Your task to perform on an android device: When is my next meeting? Image 0: 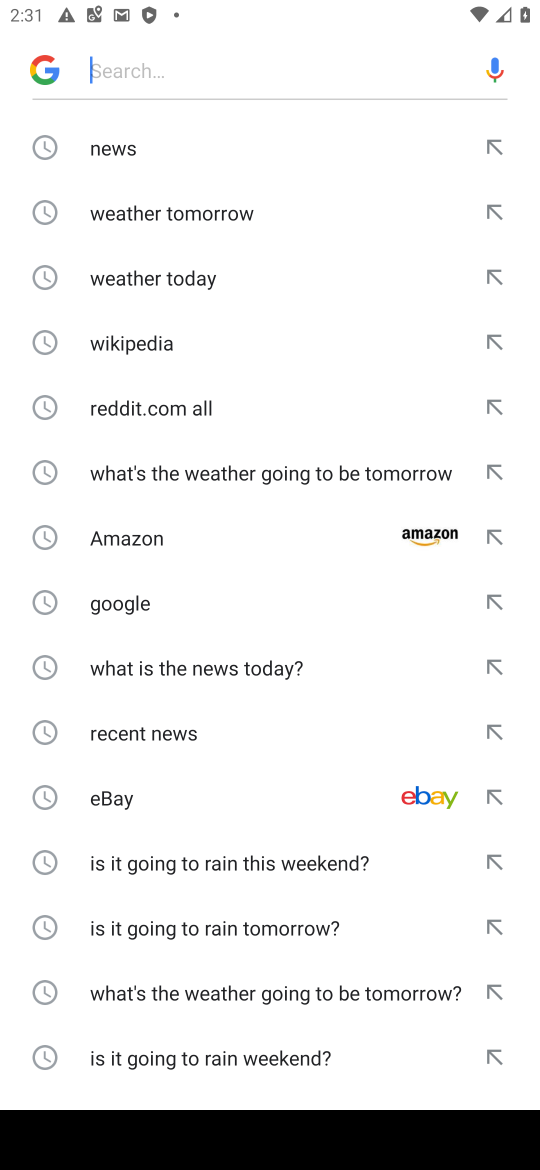
Step 0: press home button
Your task to perform on an android device: When is my next meeting? Image 1: 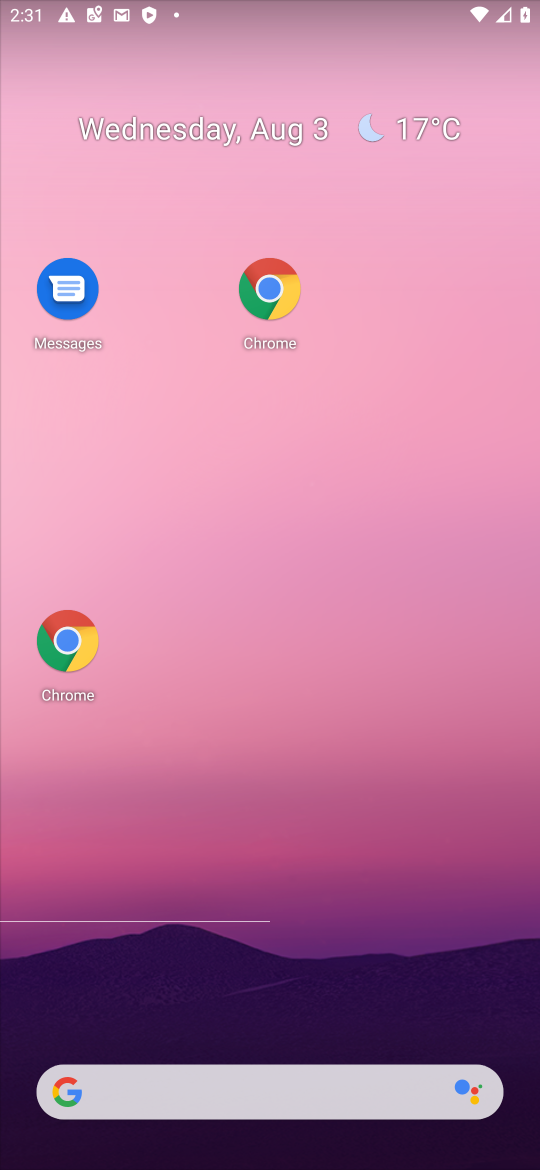
Step 1: drag from (337, 1015) to (458, 132)
Your task to perform on an android device: When is my next meeting? Image 2: 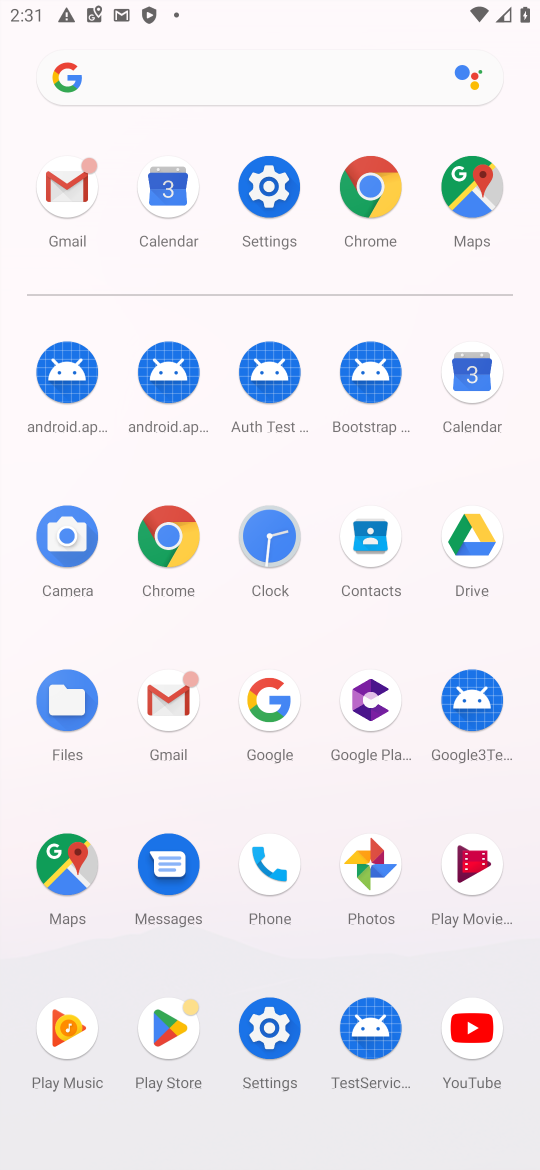
Step 2: click (477, 372)
Your task to perform on an android device: When is my next meeting? Image 3: 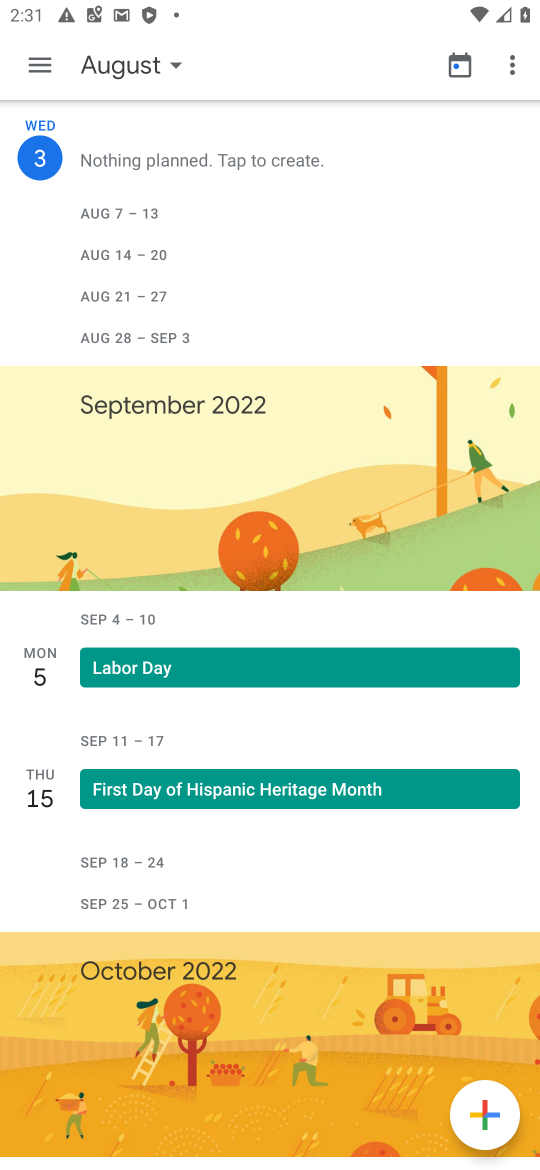
Step 3: task complete